Your task to perform on an android device: Open sound settings Image 0: 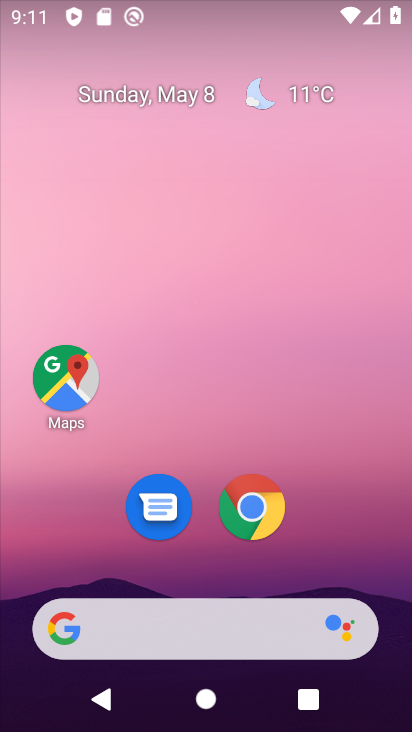
Step 0: drag from (183, 587) to (265, 277)
Your task to perform on an android device: Open sound settings Image 1: 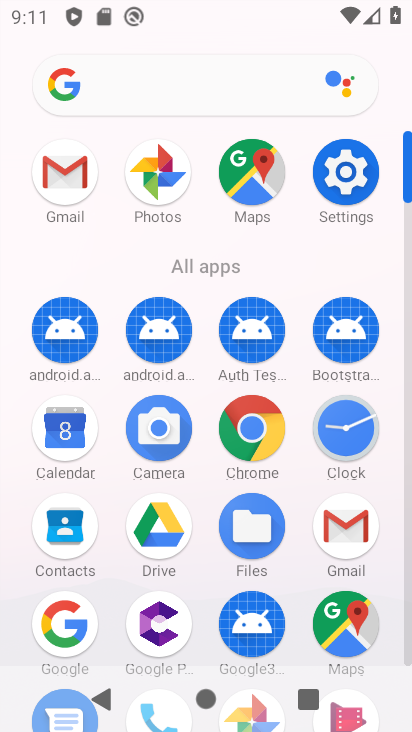
Step 1: click (362, 161)
Your task to perform on an android device: Open sound settings Image 2: 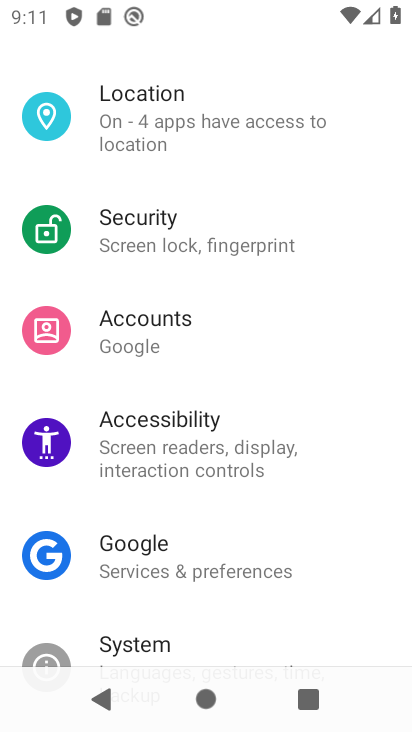
Step 2: drag from (282, 106) to (259, 364)
Your task to perform on an android device: Open sound settings Image 3: 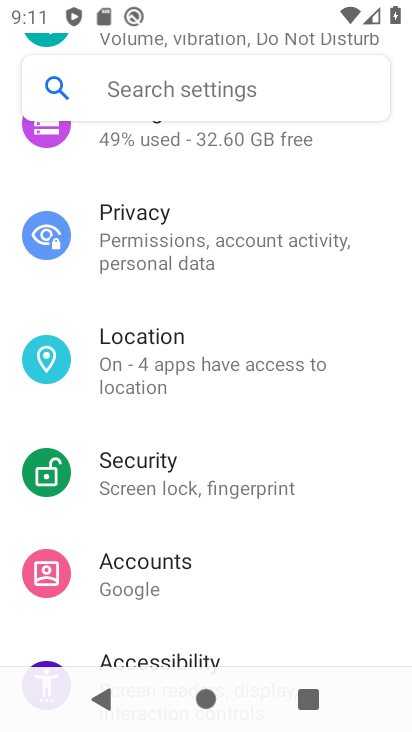
Step 3: drag from (285, 239) to (251, 499)
Your task to perform on an android device: Open sound settings Image 4: 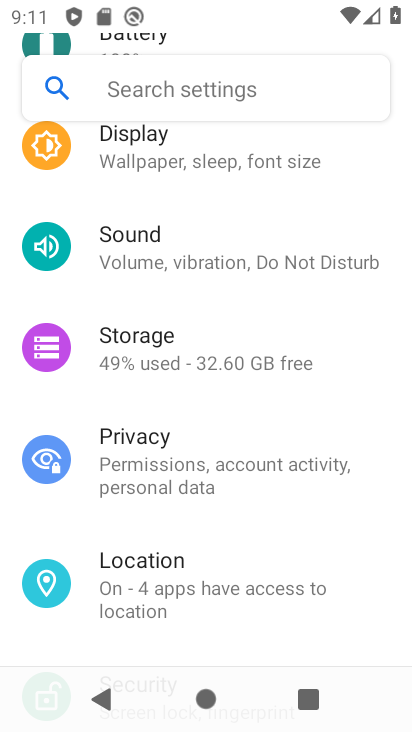
Step 4: click (264, 262)
Your task to perform on an android device: Open sound settings Image 5: 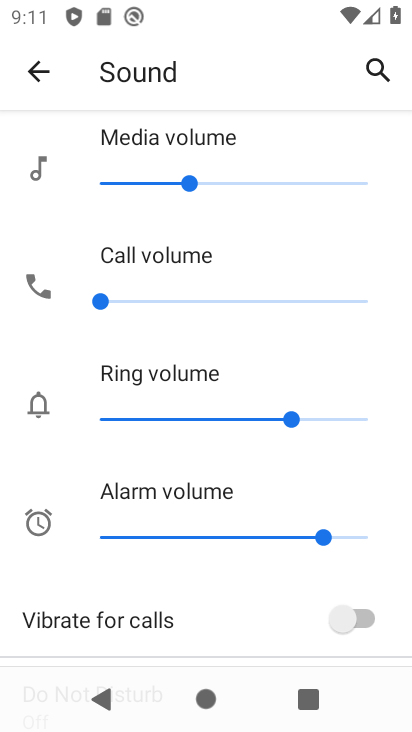
Step 5: task complete